Your task to perform on an android device: set an alarm Image 0: 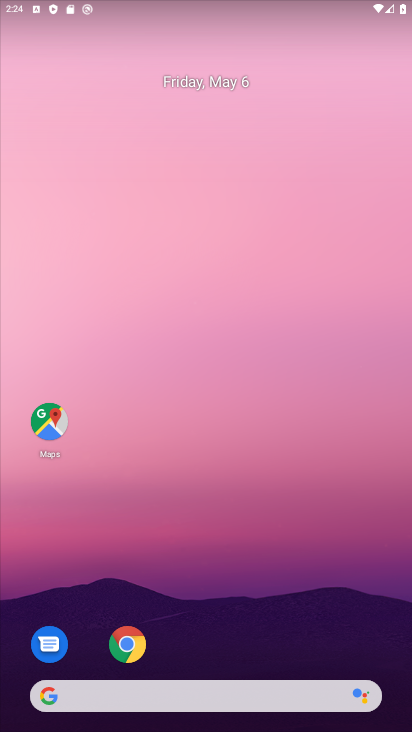
Step 0: drag from (191, 721) to (262, 30)
Your task to perform on an android device: set an alarm Image 1: 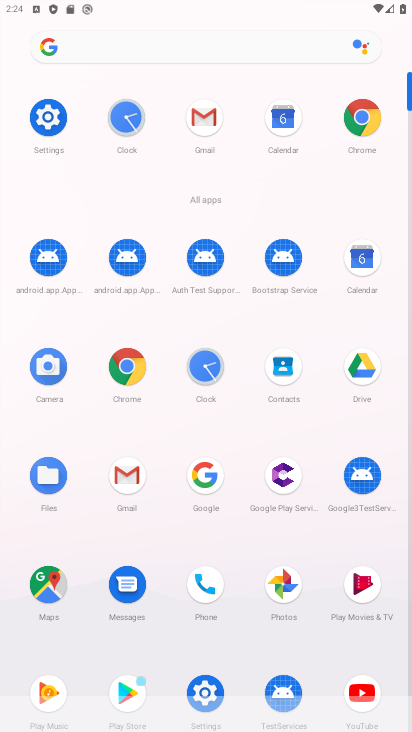
Step 1: click (141, 125)
Your task to perform on an android device: set an alarm Image 2: 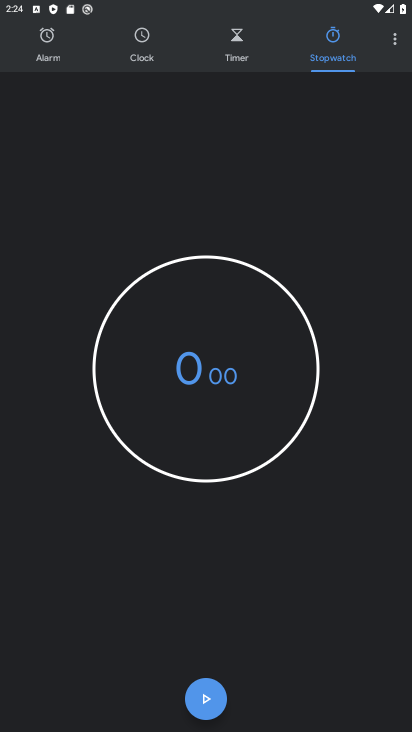
Step 2: click (55, 56)
Your task to perform on an android device: set an alarm Image 3: 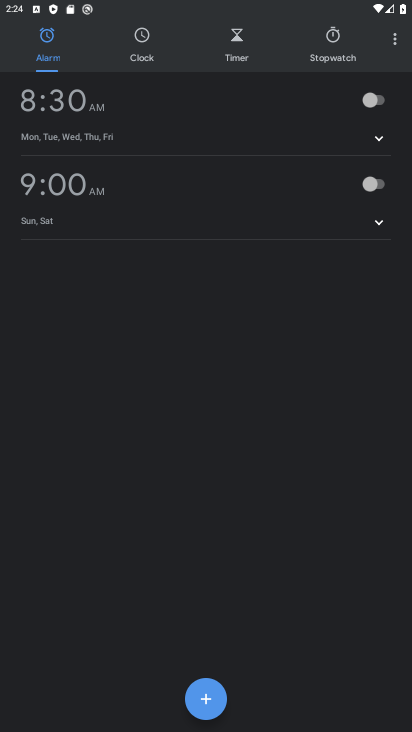
Step 3: click (209, 693)
Your task to perform on an android device: set an alarm Image 4: 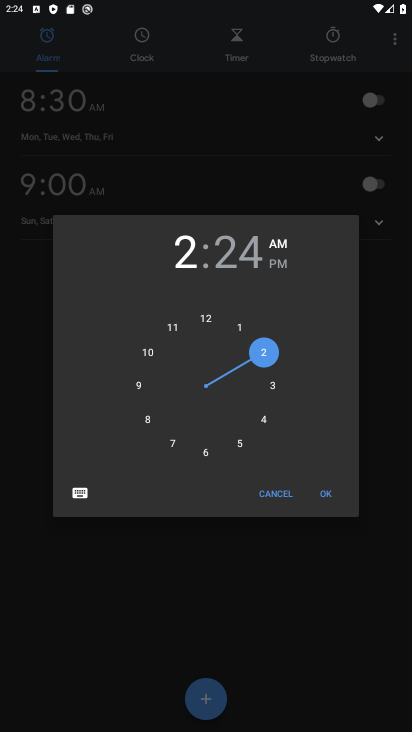
Step 4: click (319, 489)
Your task to perform on an android device: set an alarm Image 5: 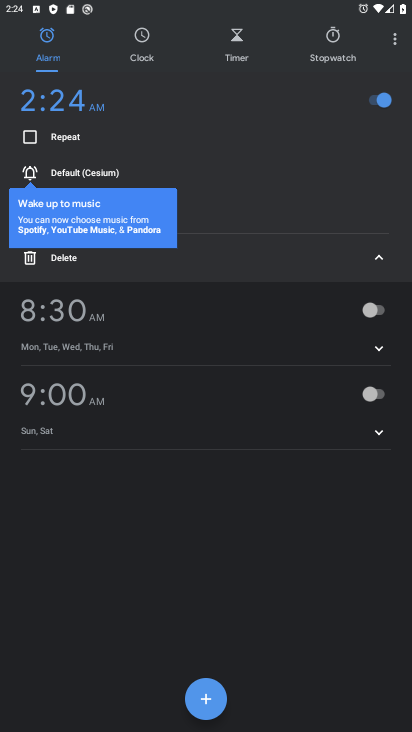
Step 5: task complete